Your task to perform on an android device: Open calendar and show me the second week of next month Image 0: 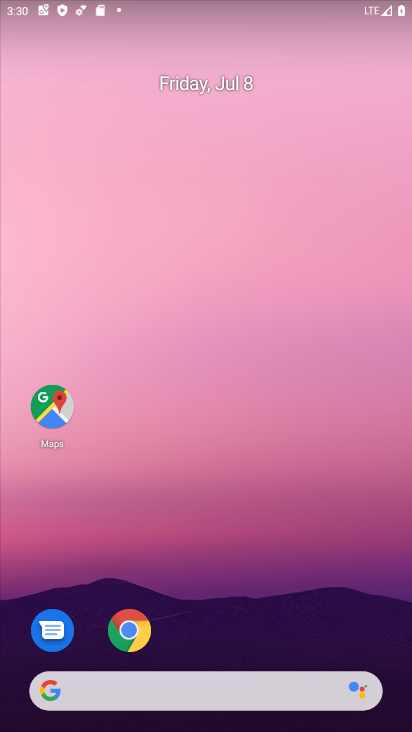
Step 0: drag from (229, 643) to (203, 181)
Your task to perform on an android device: Open calendar and show me the second week of next month Image 1: 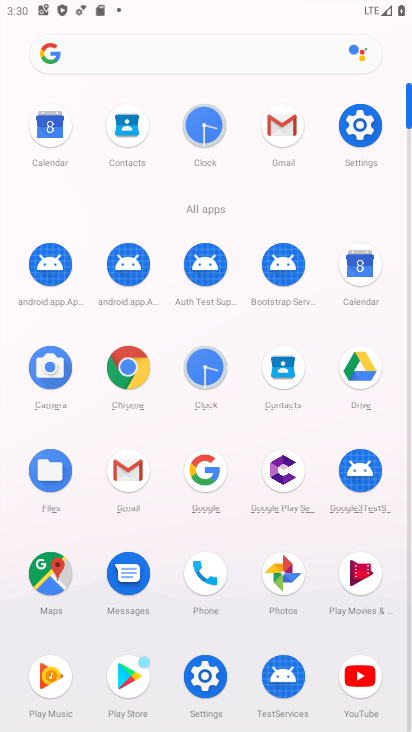
Step 1: click (361, 265)
Your task to perform on an android device: Open calendar and show me the second week of next month Image 2: 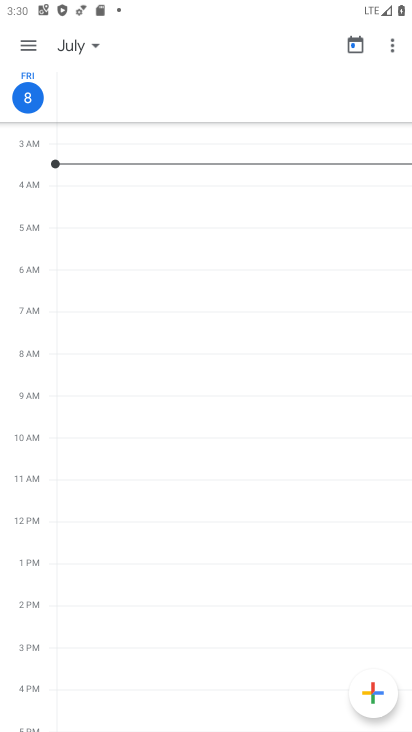
Step 2: click (101, 44)
Your task to perform on an android device: Open calendar and show me the second week of next month Image 3: 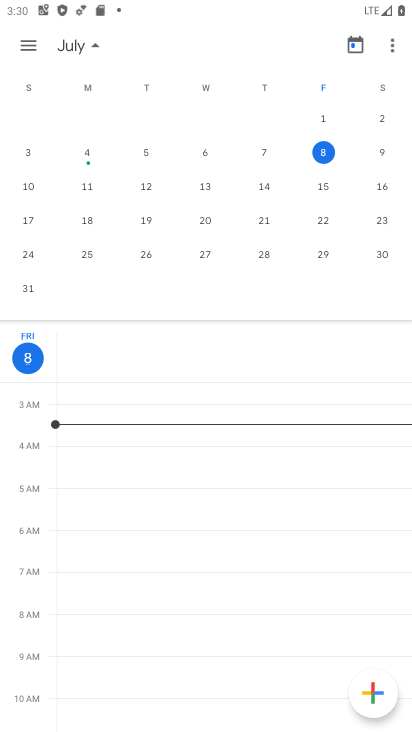
Step 3: drag from (370, 204) to (6, 269)
Your task to perform on an android device: Open calendar and show me the second week of next month Image 4: 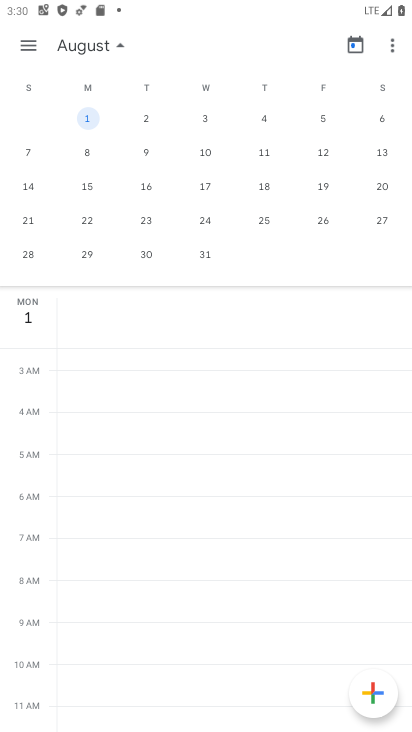
Step 4: click (87, 162)
Your task to perform on an android device: Open calendar and show me the second week of next month Image 5: 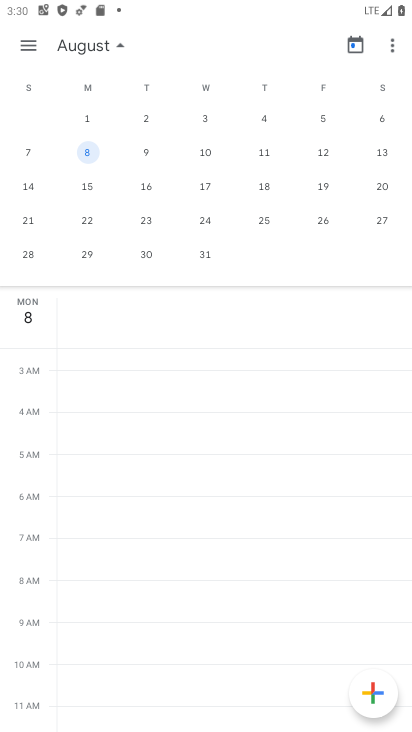
Step 5: click (30, 52)
Your task to perform on an android device: Open calendar and show me the second week of next month Image 6: 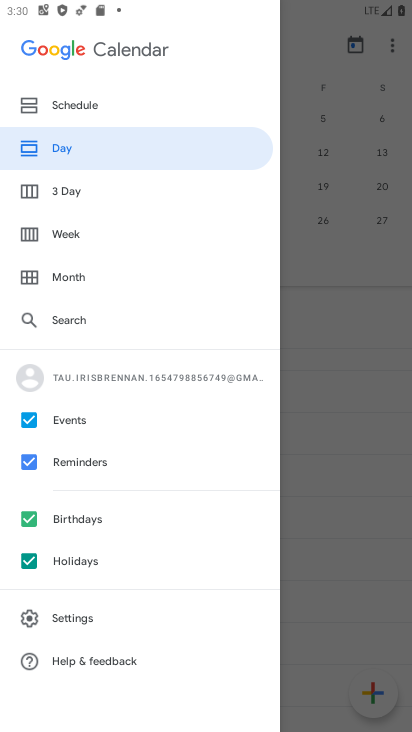
Step 6: click (55, 232)
Your task to perform on an android device: Open calendar and show me the second week of next month Image 7: 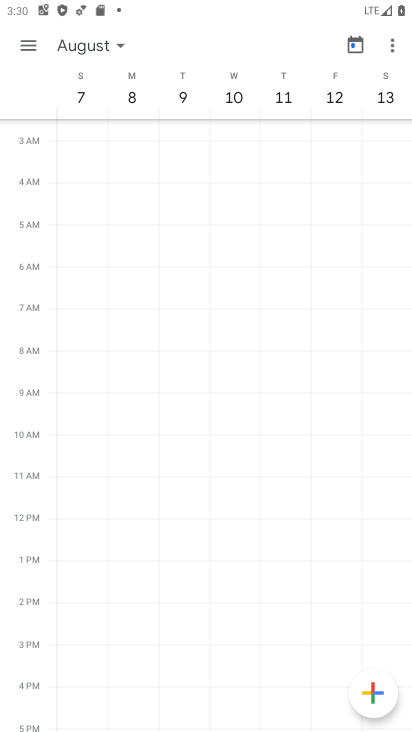
Step 7: task complete